Your task to perform on an android device: What is the recent news? Image 0: 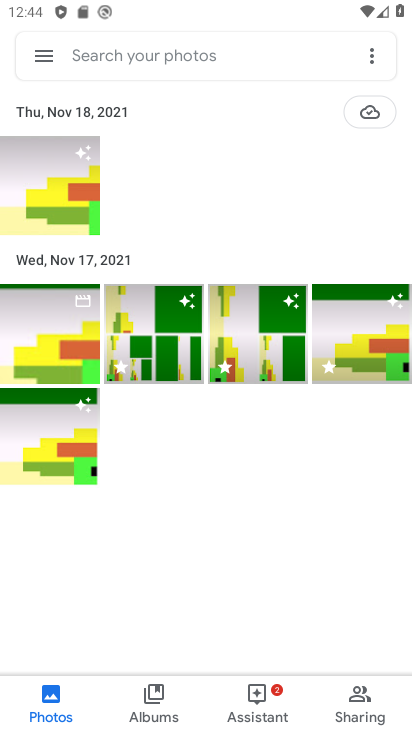
Step 0: press home button
Your task to perform on an android device: What is the recent news? Image 1: 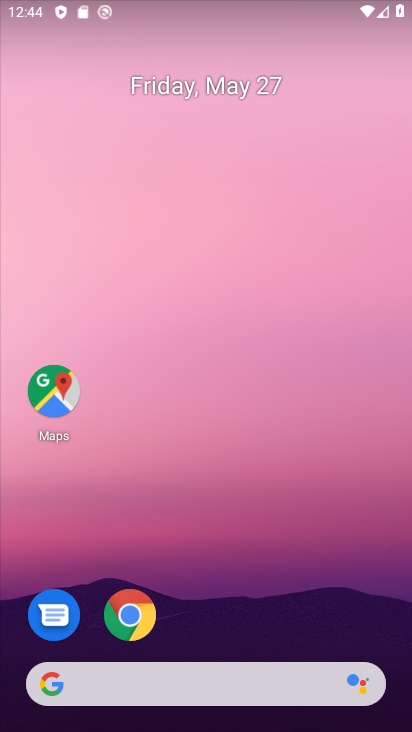
Step 1: drag from (258, 549) to (370, 127)
Your task to perform on an android device: What is the recent news? Image 2: 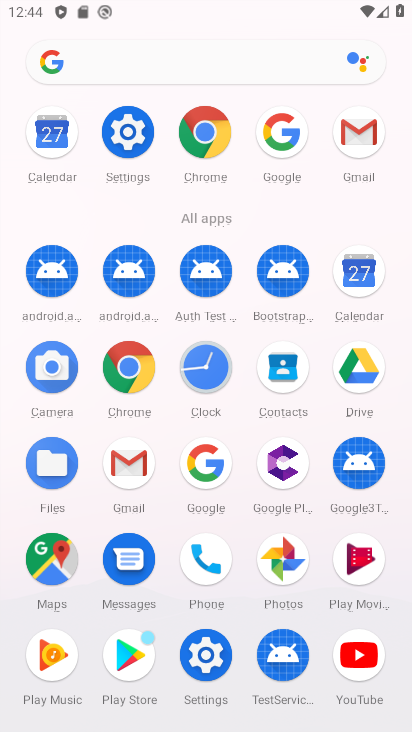
Step 2: click (208, 461)
Your task to perform on an android device: What is the recent news? Image 3: 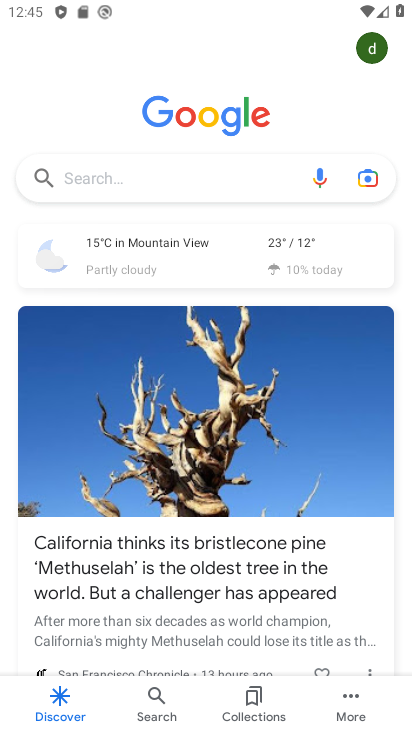
Step 3: task complete